Your task to perform on an android device: turn off data saver in the chrome app Image 0: 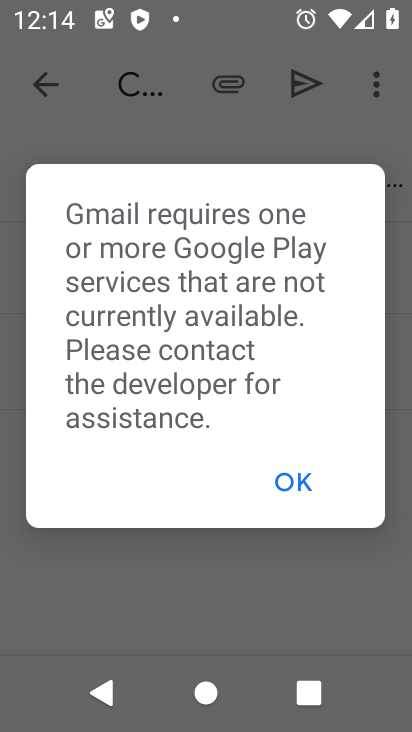
Step 0: press home button
Your task to perform on an android device: turn off data saver in the chrome app Image 1: 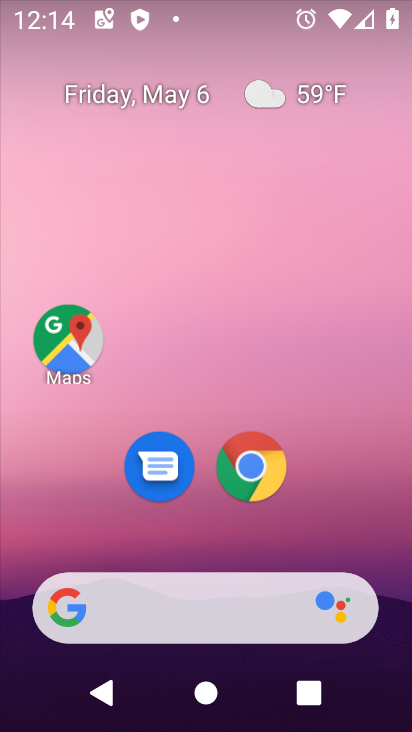
Step 1: click (250, 469)
Your task to perform on an android device: turn off data saver in the chrome app Image 2: 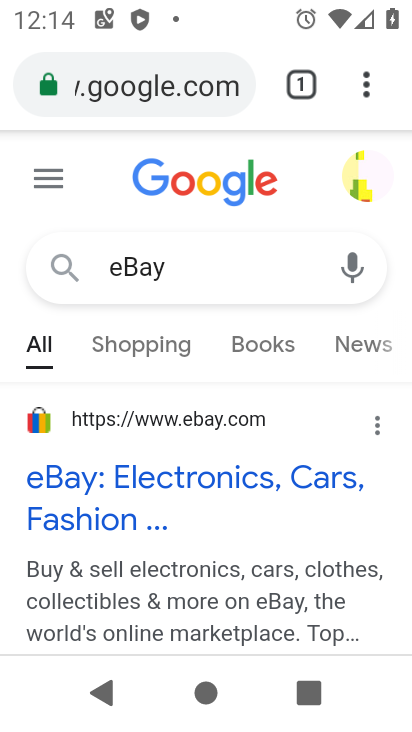
Step 2: click (361, 88)
Your task to perform on an android device: turn off data saver in the chrome app Image 3: 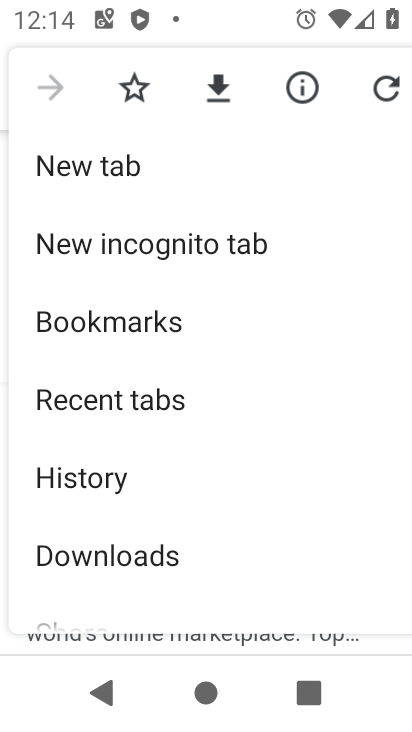
Step 3: drag from (137, 569) to (233, 214)
Your task to perform on an android device: turn off data saver in the chrome app Image 4: 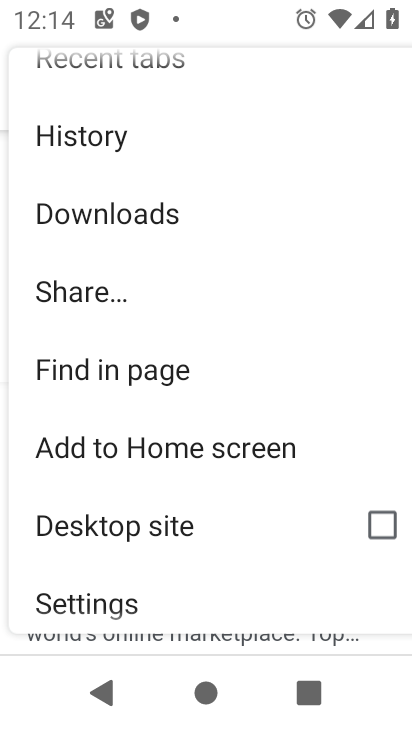
Step 4: click (66, 607)
Your task to perform on an android device: turn off data saver in the chrome app Image 5: 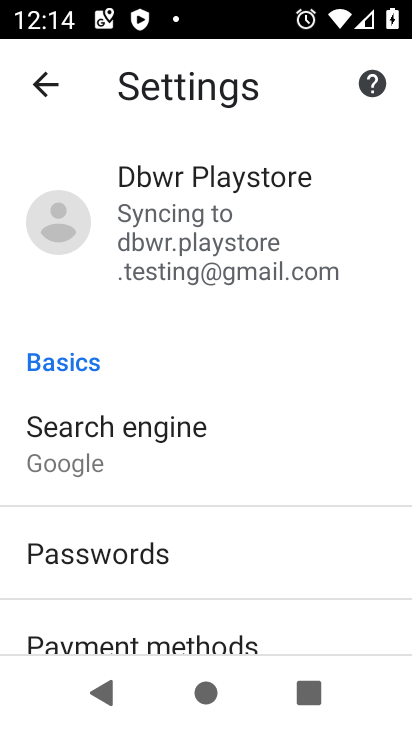
Step 5: drag from (138, 589) to (210, 195)
Your task to perform on an android device: turn off data saver in the chrome app Image 6: 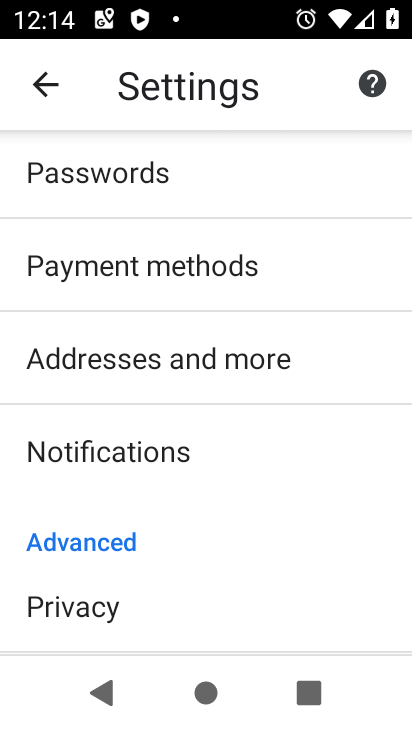
Step 6: drag from (162, 587) to (204, 177)
Your task to perform on an android device: turn off data saver in the chrome app Image 7: 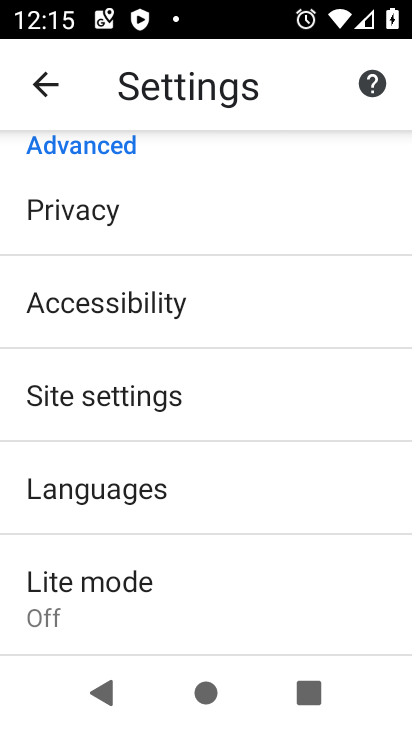
Step 7: click (117, 590)
Your task to perform on an android device: turn off data saver in the chrome app Image 8: 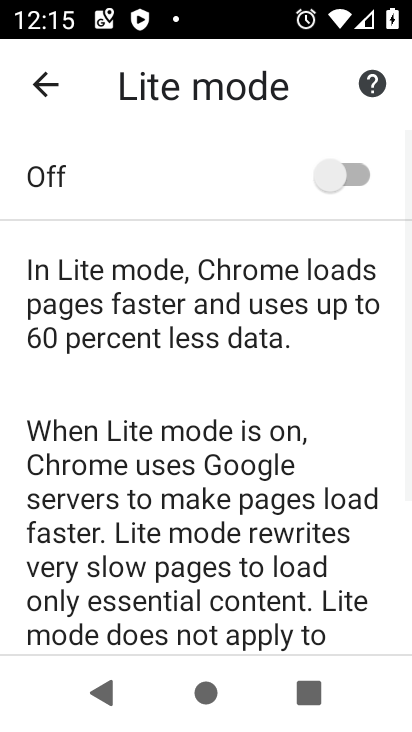
Step 8: task complete